Your task to perform on an android device: Search for Italian restaurants on Maps Image 0: 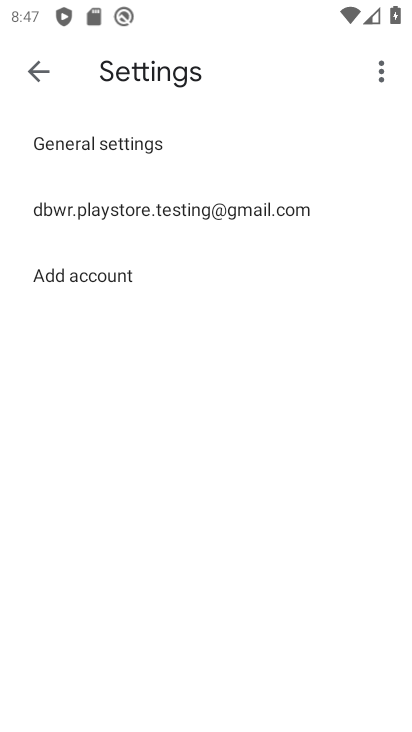
Step 0: press home button
Your task to perform on an android device: Search for Italian restaurants on Maps Image 1: 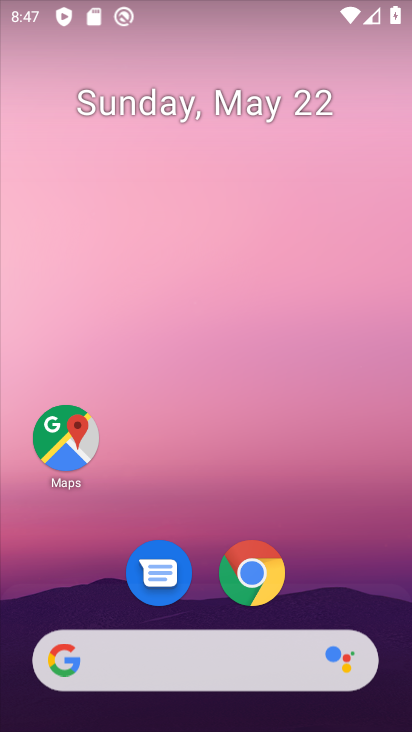
Step 1: drag from (279, 659) to (281, 266)
Your task to perform on an android device: Search for Italian restaurants on Maps Image 2: 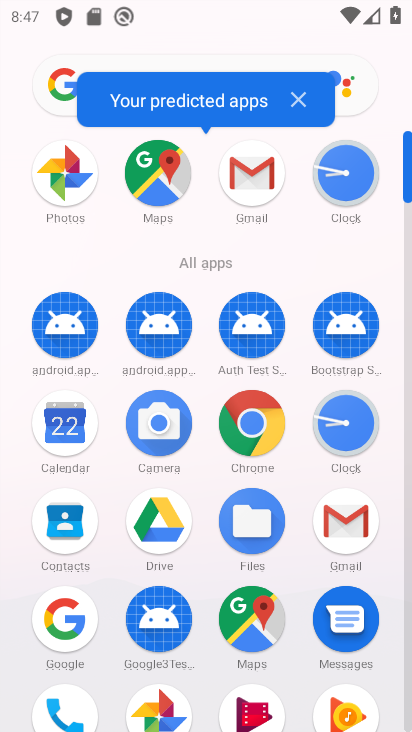
Step 2: drag from (293, 665) to (317, 394)
Your task to perform on an android device: Search for Italian restaurants on Maps Image 3: 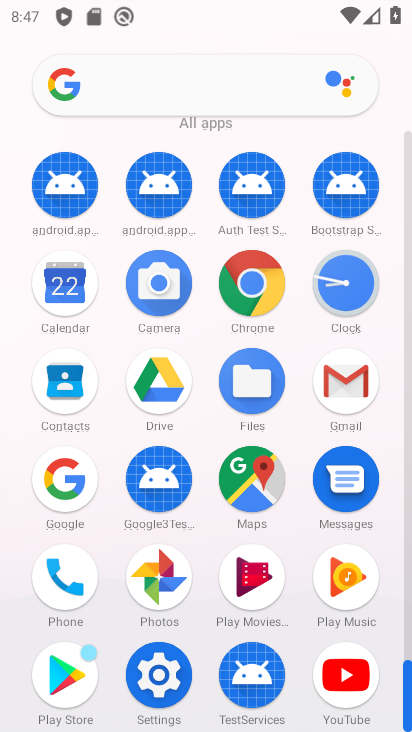
Step 3: click (247, 457)
Your task to perform on an android device: Search for Italian restaurants on Maps Image 4: 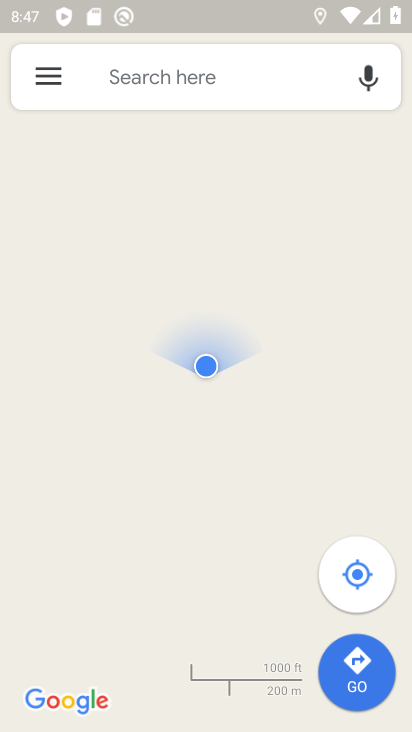
Step 4: click (293, 82)
Your task to perform on an android device: Search for Italian restaurants on Maps Image 5: 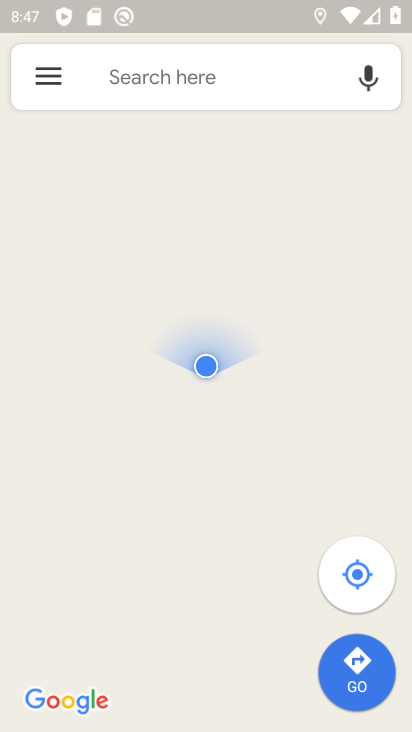
Step 5: click (292, 82)
Your task to perform on an android device: Search for Italian restaurants on Maps Image 6: 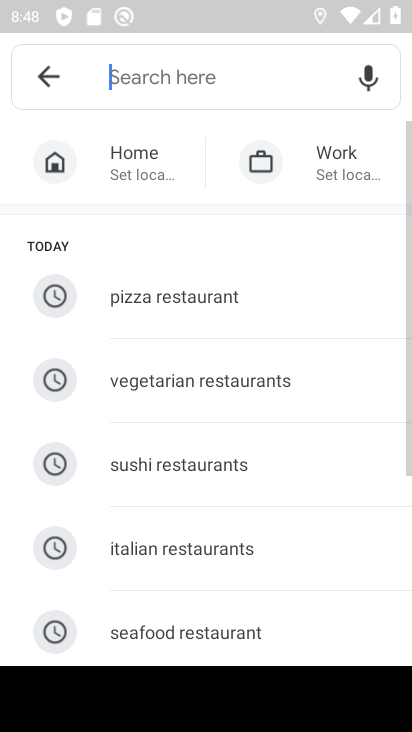
Step 6: type "italian restaurant"
Your task to perform on an android device: Search for Italian restaurants on Maps Image 7: 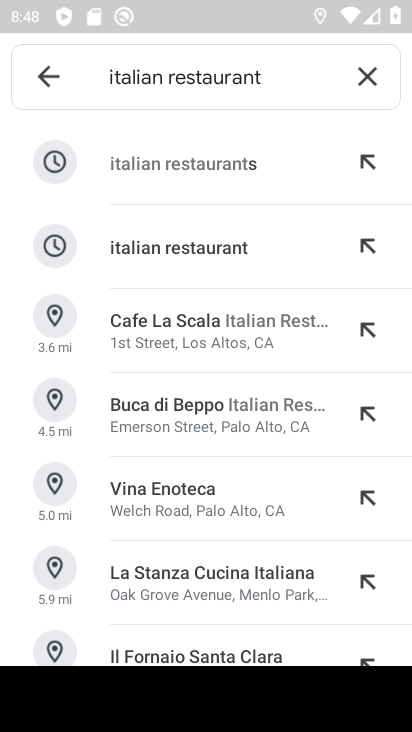
Step 7: click (241, 179)
Your task to perform on an android device: Search for Italian restaurants on Maps Image 8: 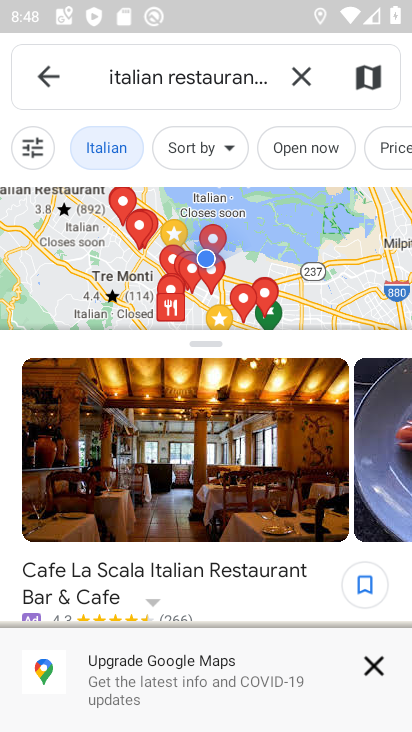
Step 8: task complete